Your task to perform on an android device: Open Google Image 0: 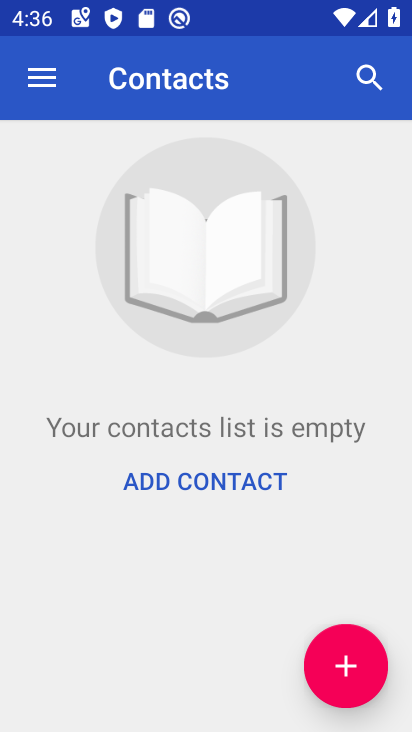
Step 0: press back button
Your task to perform on an android device: Open Google Image 1: 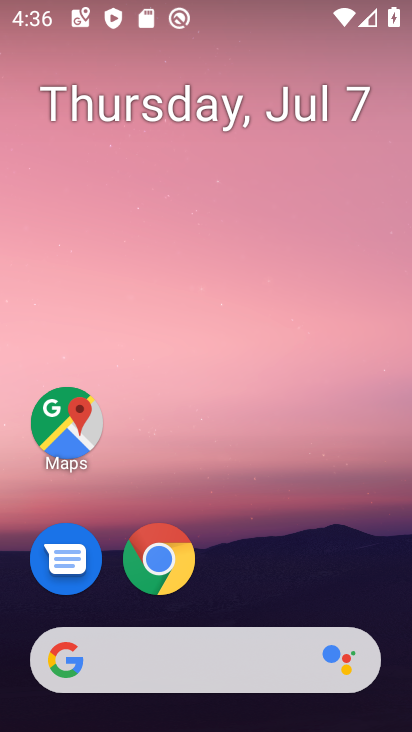
Step 1: drag from (258, 605) to (258, 65)
Your task to perform on an android device: Open Google Image 2: 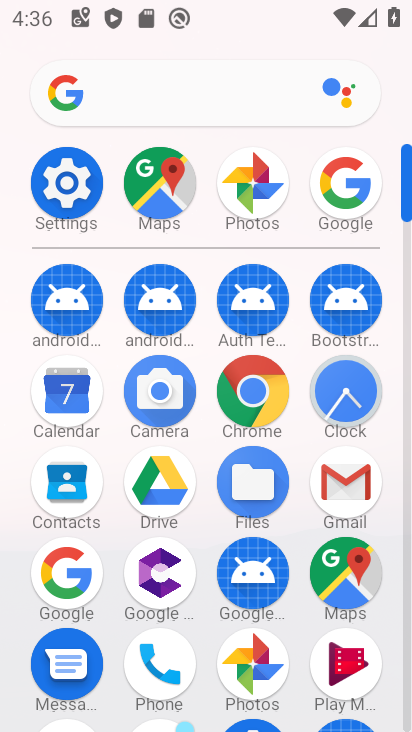
Step 2: click (60, 584)
Your task to perform on an android device: Open Google Image 3: 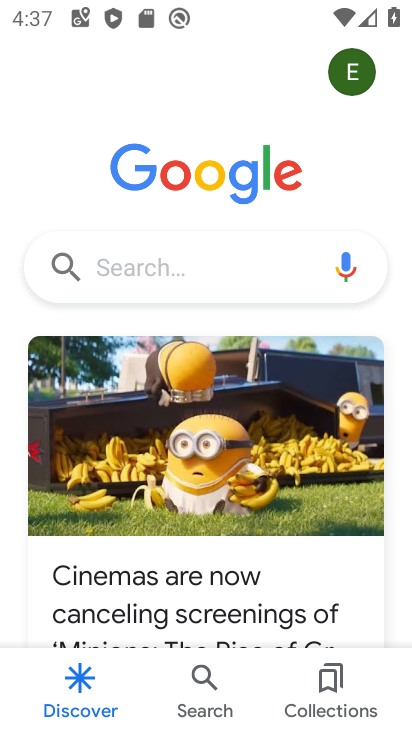
Step 3: task complete